Your task to perform on an android device: change the clock display to digital Image 0: 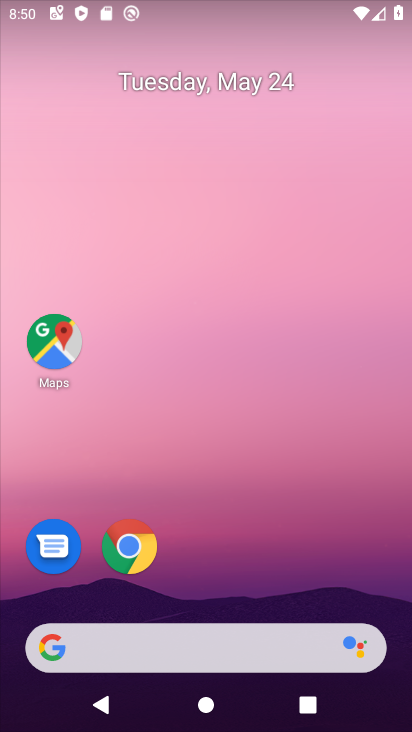
Step 0: drag from (173, 594) to (186, 229)
Your task to perform on an android device: change the clock display to digital Image 1: 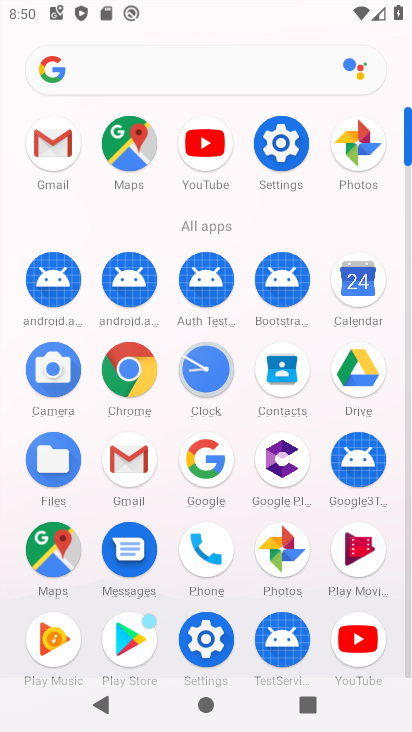
Step 1: click (206, 366)
Your task to perform on an android device: change the clock display to digital Image 2: 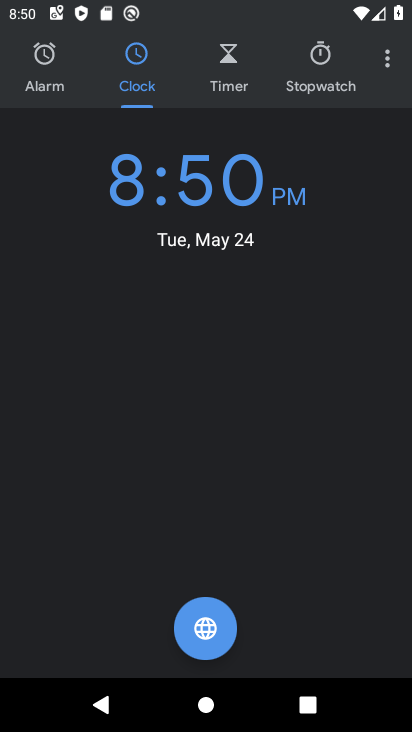
Step 2: click (392, 60)
Your task to perform on an android device: change the clock display to digital Image 3: 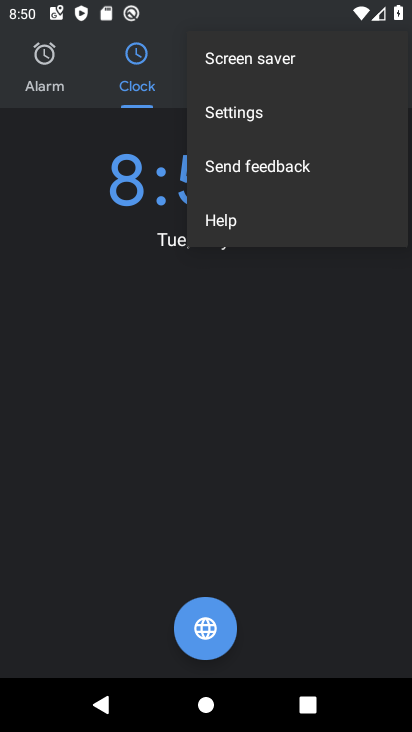
Step 3: click (227, 113)
Your task to perform on an android device: change the clock display to digital Image 4: 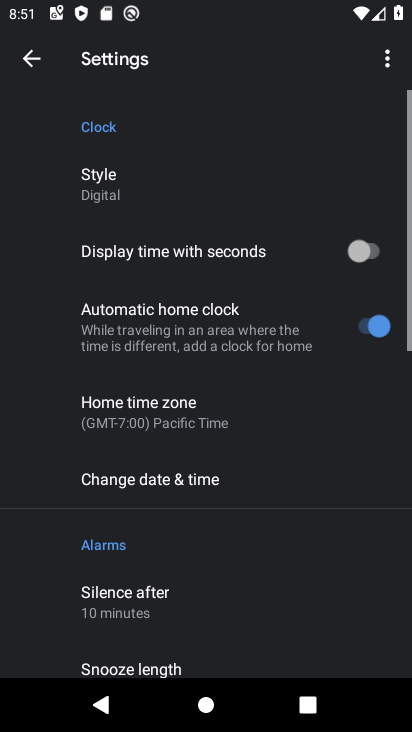
Step 4: click (119, 185)
Your task to perform on an android device: change the clock display to digital Image 5: 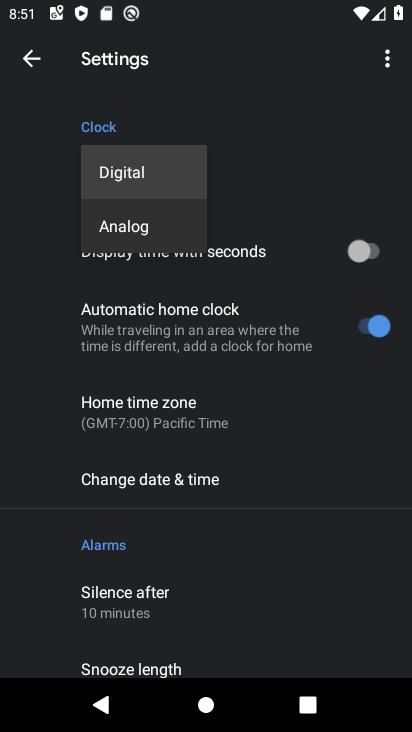
Step 5: click (22, 290)
Your task to perform on an android device: change the clock display to digital Image 6: 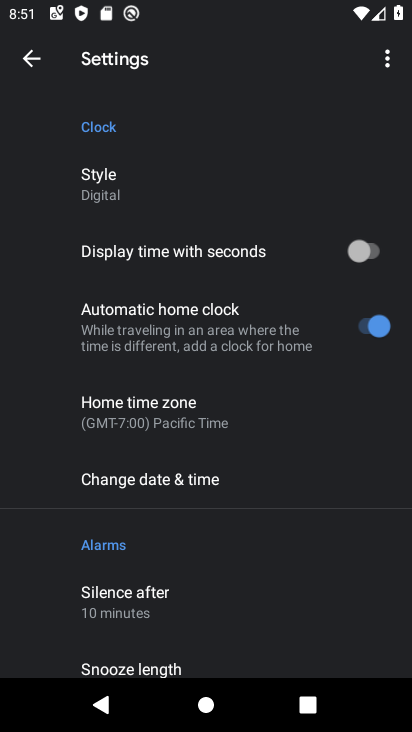
Step 6: task complete